Your task to perform on an android device: Open ESPN.com Image 0: 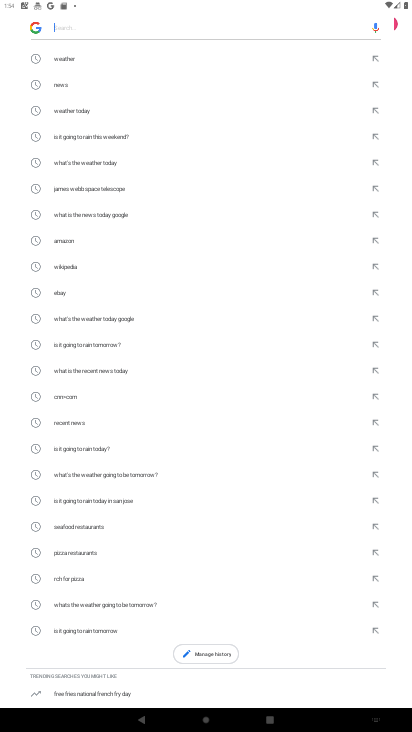
Step 0: press home button
Your task to perform on an android device: Open ESPN.com Image 1: 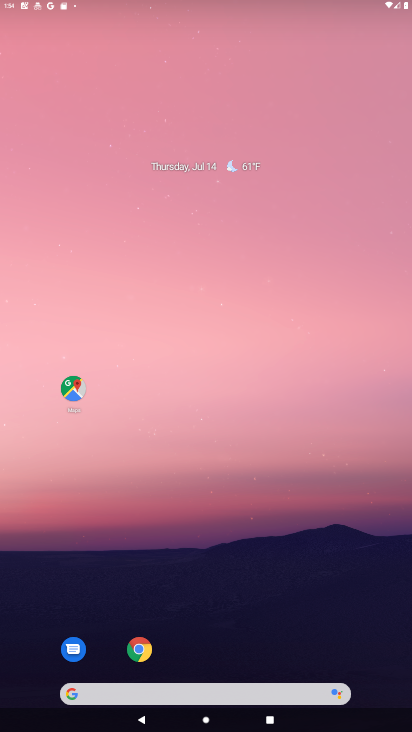
Step 1: drag from (224, 695) to (292, 3)
Your task to perform on an android device: Open ESPN.com Image 2: 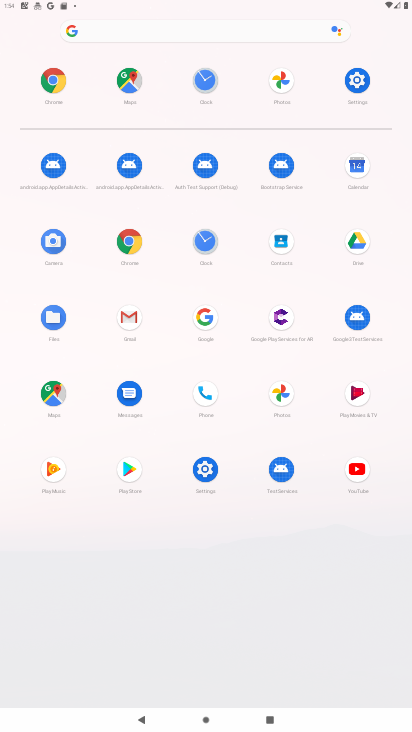
Step 2: click (122, 249)
Your task to perform on an android device: Open ESPN.com Image 3: 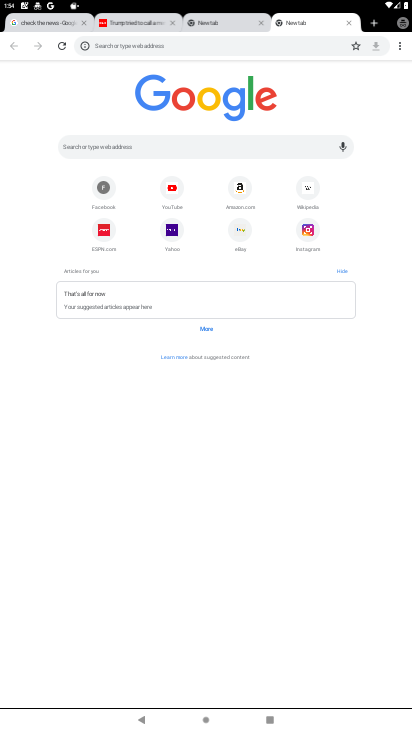
Step 3: click (108, 222)
Your task to perform on an android device: Open ESPN.com Image 4: 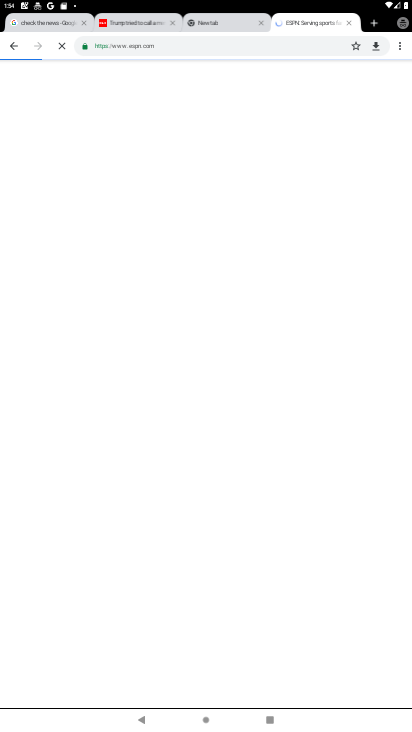
Step 4: task complete